Your task to perform on an android device: install app "Airtel Thanks" Image 0: 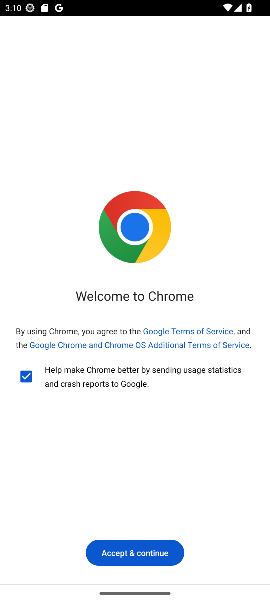
Step 0: press home button
Your task to perform on an android device: install app "Airtel Thanks" Image 1: 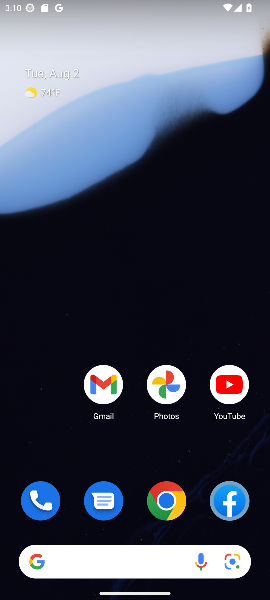
Step 1: drag from (154, 452) to (154, 32)
Your task to perform on an android device: install app "Airtel Thanks" Image 2: 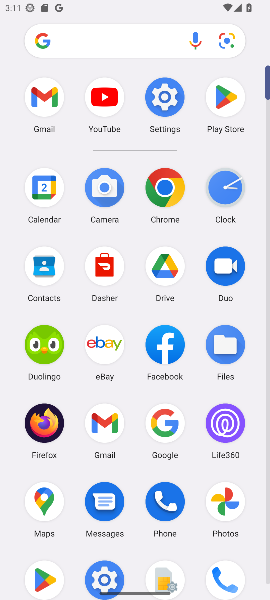
Step 2: click (231, 112)
Your task to perform on an android device: install app "Airtel Thanks" Image 3: 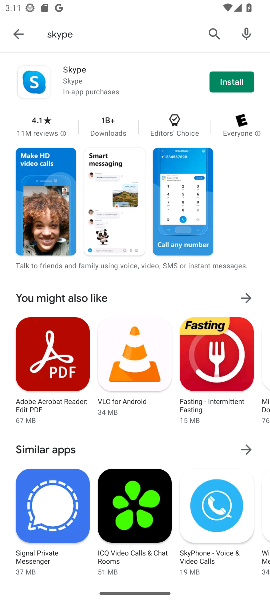
Step 3: click (215, 35)
Your task to perform on an android device: install app "Airtel Thanks" Image 4: 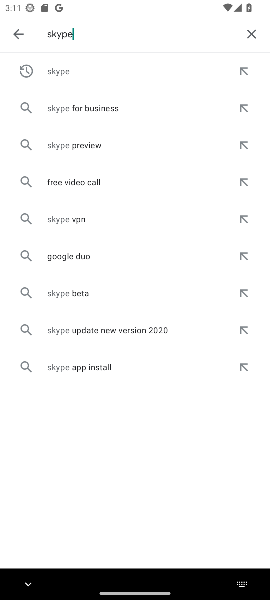
Step 4: click (251, 28)
Your task to perform on an android device: install app "Airtel Thanks" Image 5: 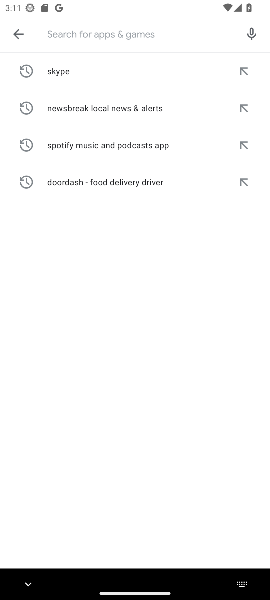
Step 5: type "Airtel Thanks"
Your task to perform on an android device: install app "Airtel Thanks" Image 6: 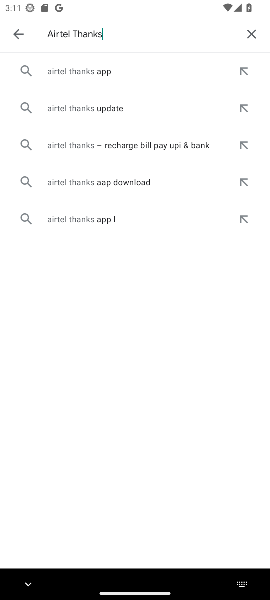
Step 6: click (83, 69)
Your task to perform on an android device: install app "Airtel Thanks" Image 7: 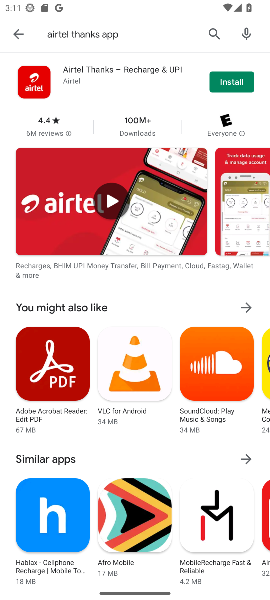
Step 7: click (217, 84)
Your task to perform on an android device: install app "Airtel Thanks" Image 8: 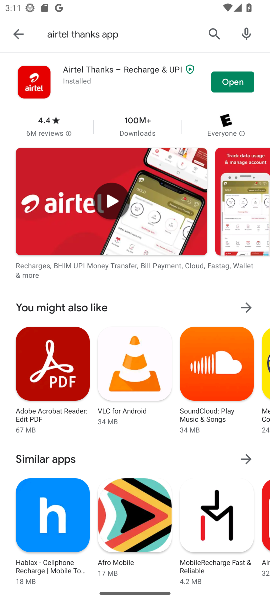
Step 8: task complete